Your task to perform on an android device: Open the Play Movies app and select the watchlist tab. Image 0: 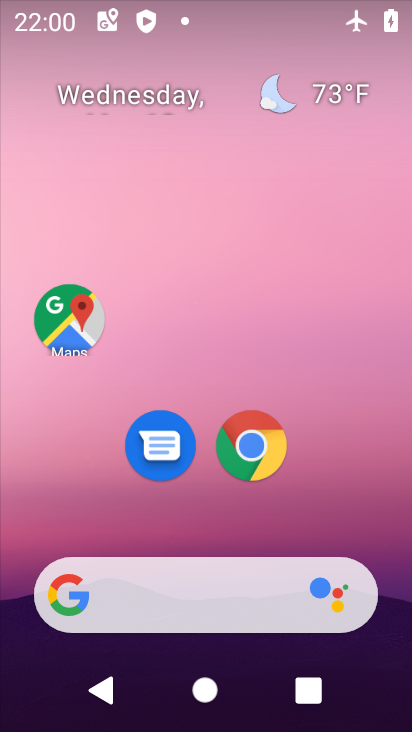
Step 0: drag from (306, 503) to (270, 191)
Your task to perform on an android device: Open the Play Movies app and select the watchlist tab. Image 1: 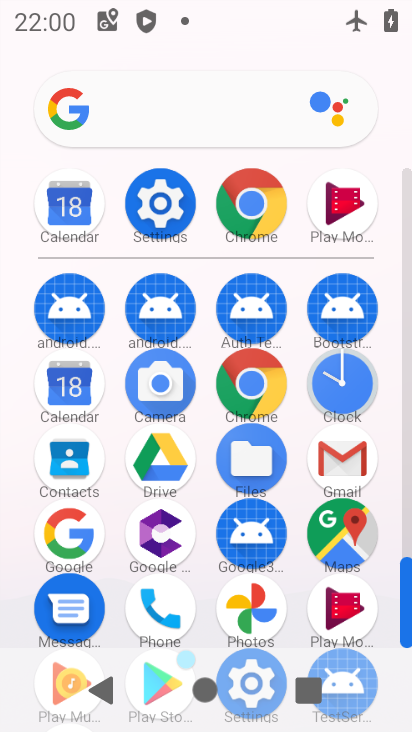
Step 1: click (343, 596)
Your task to perform on an android device: Open the Play Movies app and select the watchlist tab. Image 2: 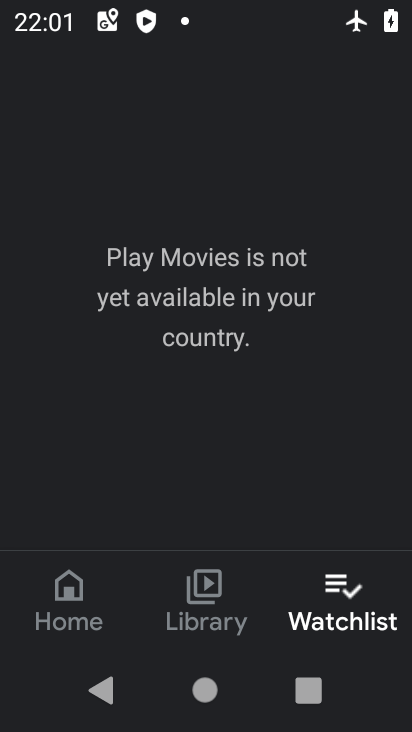
Step 2: task complete